Your task to perform on an android device: Open accessibility settings Image 0: 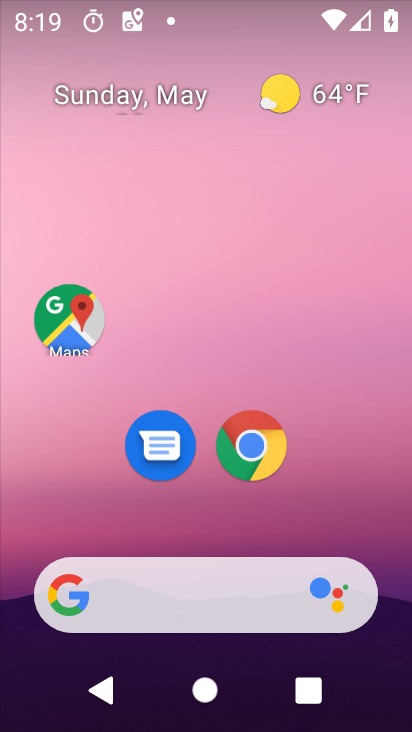
Step 0: drag from (234, 520) to (288, 7)
Your task to perform on an android device: Open accessibility settings Image 1: 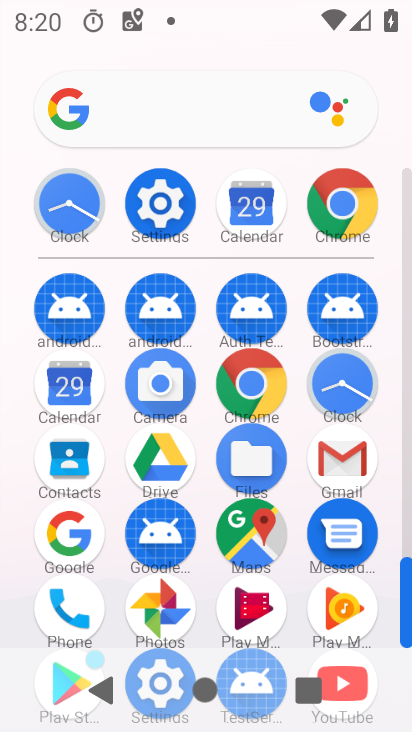
Step 1: click (153, 176)
Your task to perform on an android device: Open accessibility settings Image 2: 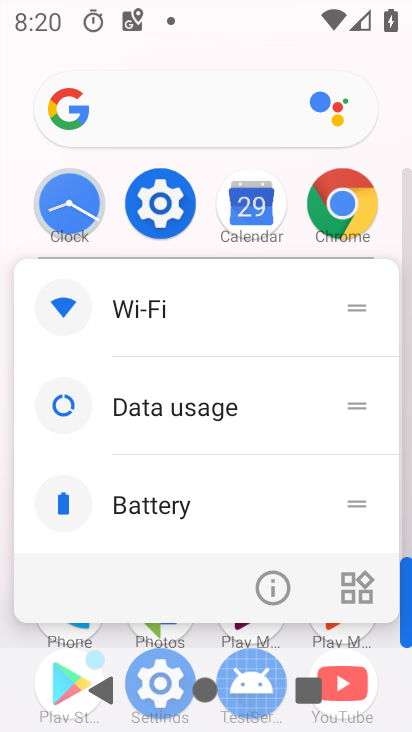
Step 2: click (273, 582)
Your task to perform on an android device: Open accessibility settings Image 3: 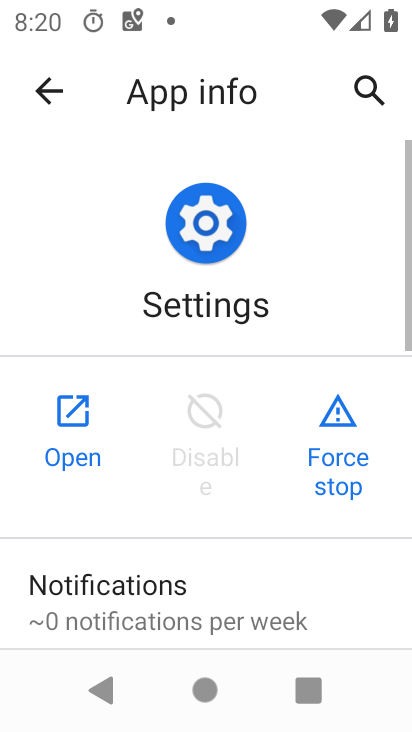
Step 3: click (68, 414)
Your task to perform on an android device: Open accessibility settings Image 4: 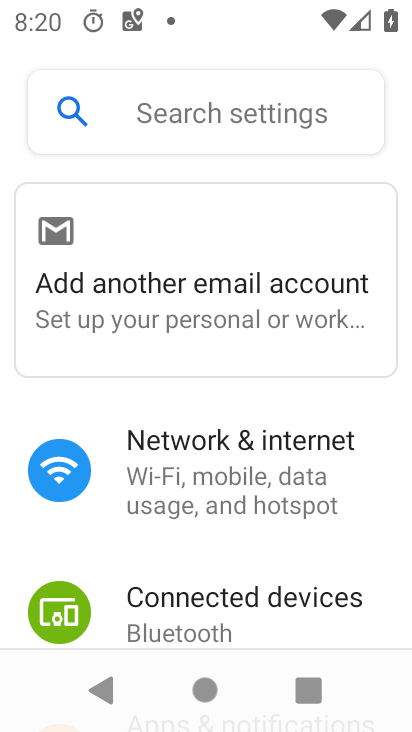
Step 4: drag from (211, 574) to (277, 7)
Your task to perform on an android device: Open accessibility settings Image 5: 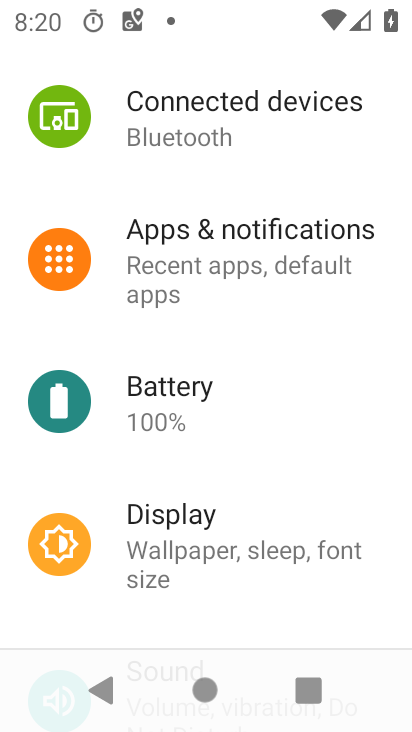
Step 5: drag from (211, 484) to (303, 6)
Your task to perform on an android device: Open accessibility settings Image 6: 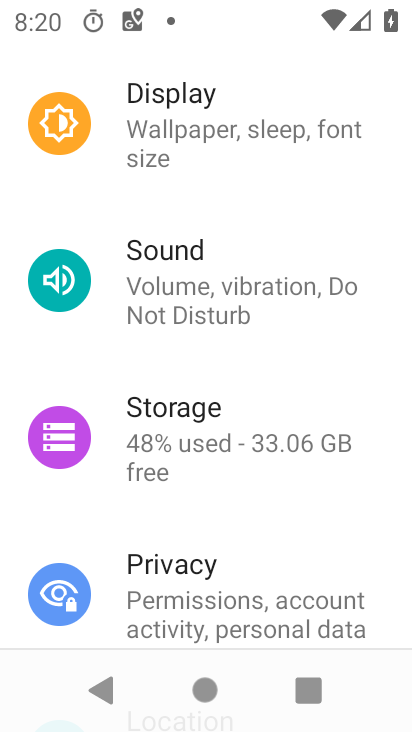
Step 6: drag from (256, 451) to (283, 39)
Your task to perform on an android device: Open accessibility settings Image 7: 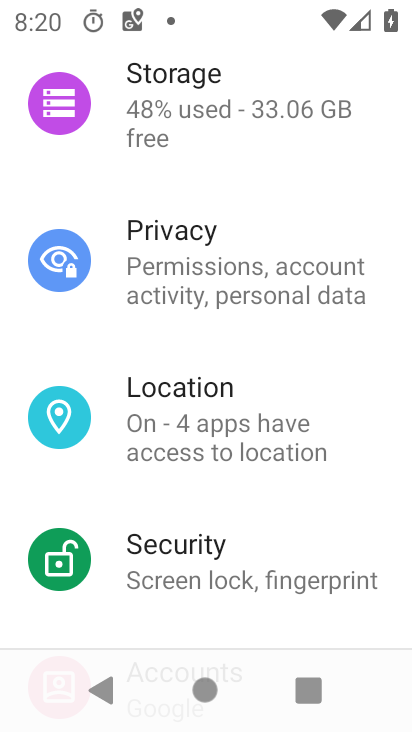
Step 7: drag from (251, 461) to (340, 3)
Your task to perform on an android device: Open accessibility settings Image 8: 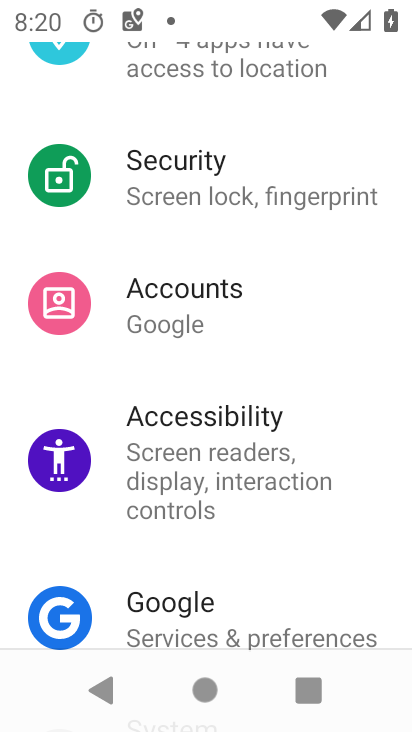
Step 8: click (209, 432)
Your task to perform on an android device: Open accessibility settings Image 9: 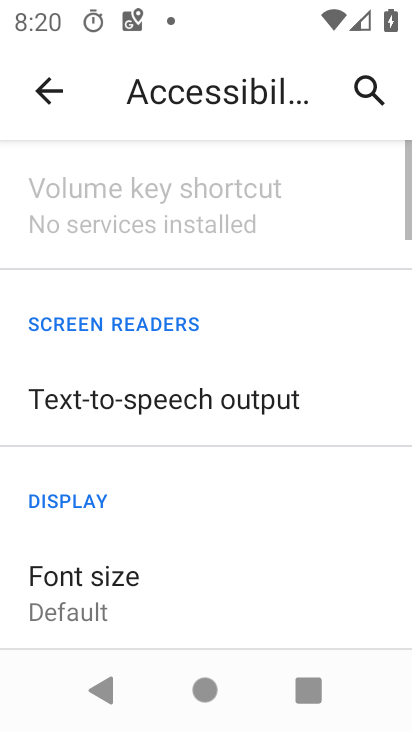
Step 9: task complete